Your task to perform on an android device: Search for "rayovac triple a" on bestbuy, select the first entry, and add it to the cart. Image 0: 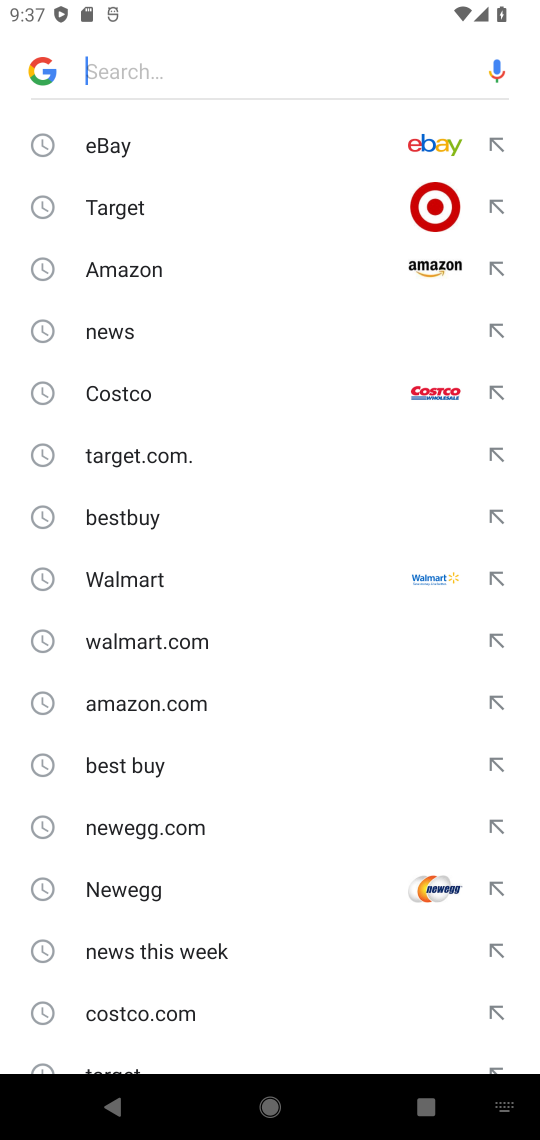
Step 0: click (141, 517)
Your task to perform on an android device: Search for "rayovac triple a" on bestbuy, select the first entry, and add it to the cart. Image 1: 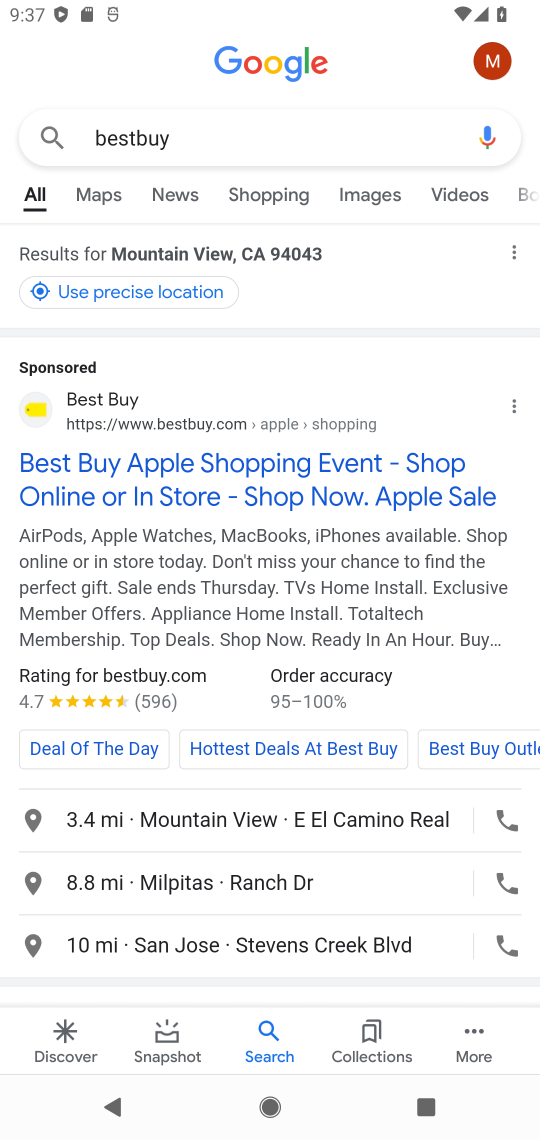
Step 1: click (212, 483)
Your task to perform on an android device: Search for "rayovac triple a" on bestbuy, select the first entry, and add it to the cart. Image 2: 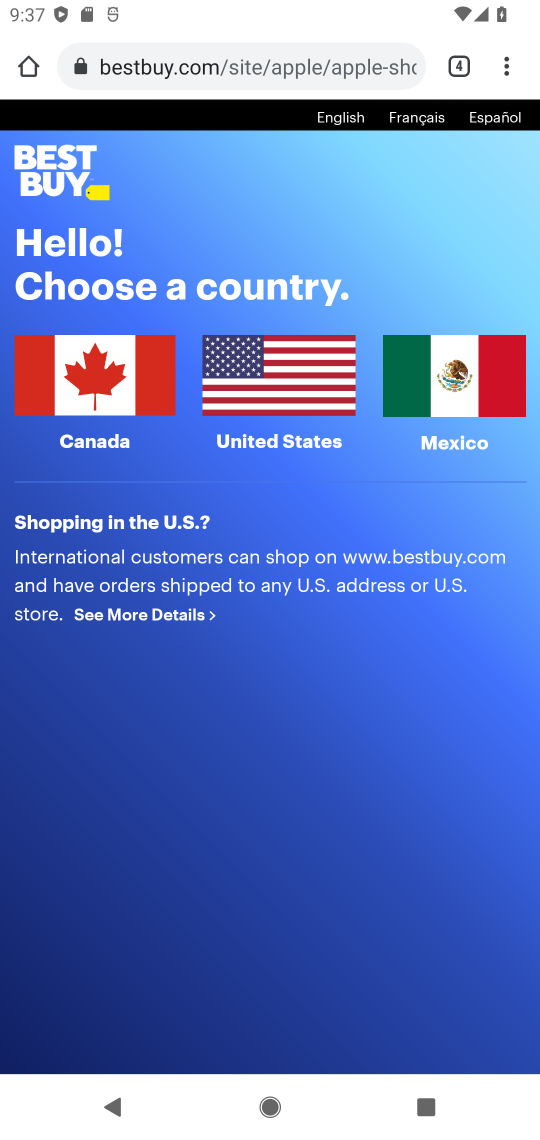
Step 2: click (260, 358)
Your task to perform on an android device: Search for "rayovac triple a" on bestbuy, select the first entry, and add it to the cart. Image 3: 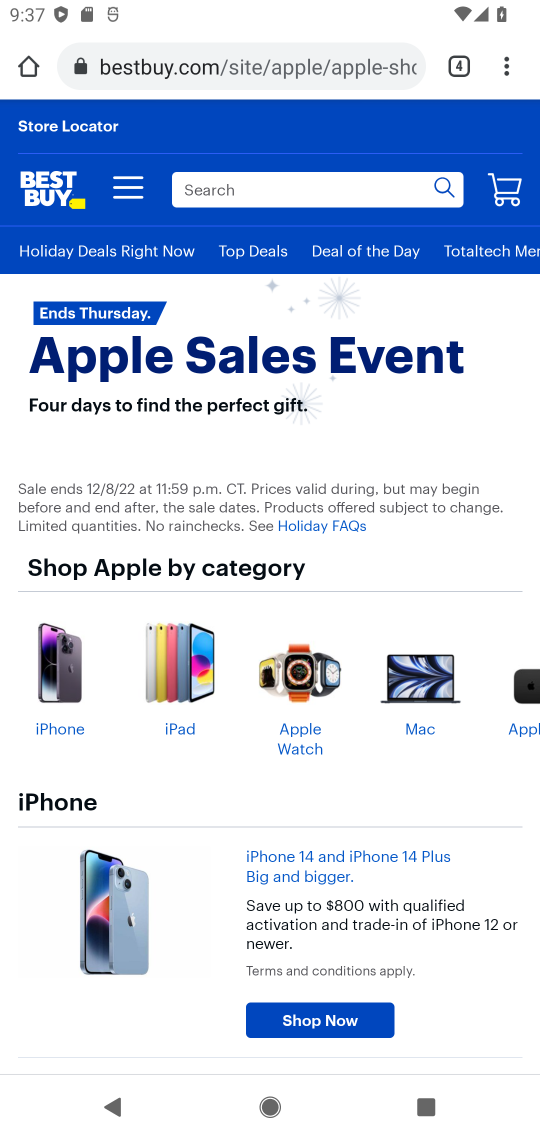
Step 3: click (208, 180)
Your task to perform on an android device: Search for "rayovac triple a" on bestbuy, select the first entry, and add it to the cart. Image 4: 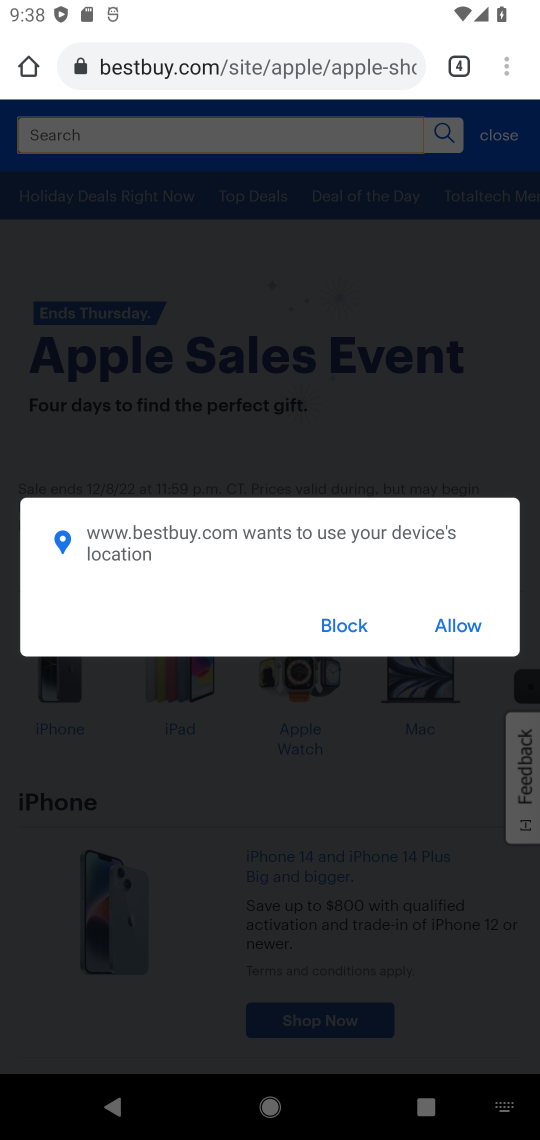
Step 4: click (453, 629)
Your task to perform on an android device: Search for "rayovac triple a" on bestbuy, select the first entry, and add it to the cart. Image 5: 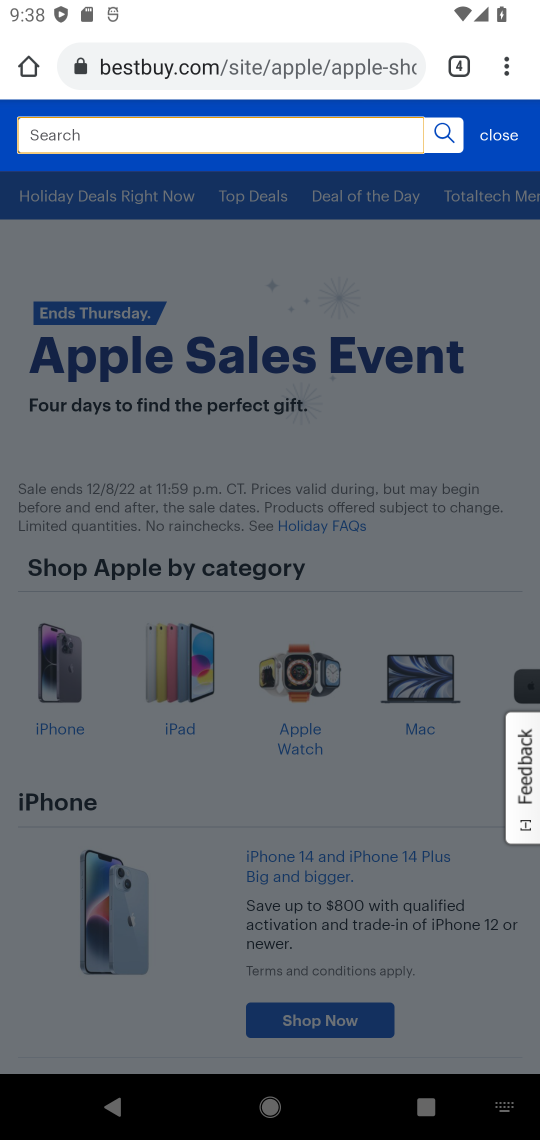
Step 5: type "rayovac triple a"
Your task to perform on an android device: Search for "rayovac triple a" on bestbuy, select the first entry, and add it to the cart. Image 6: 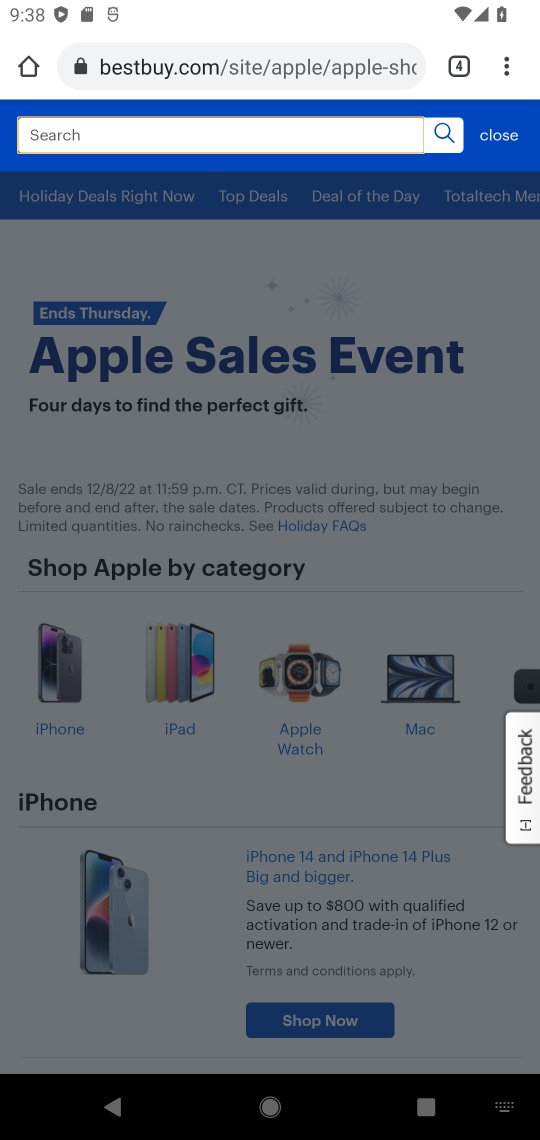
Step 6: click (444, 129)
Your task to perform on an android device: Search for "rayovac triple a" on bestbuy, select the first entry, and add it to the cart. Image 7: 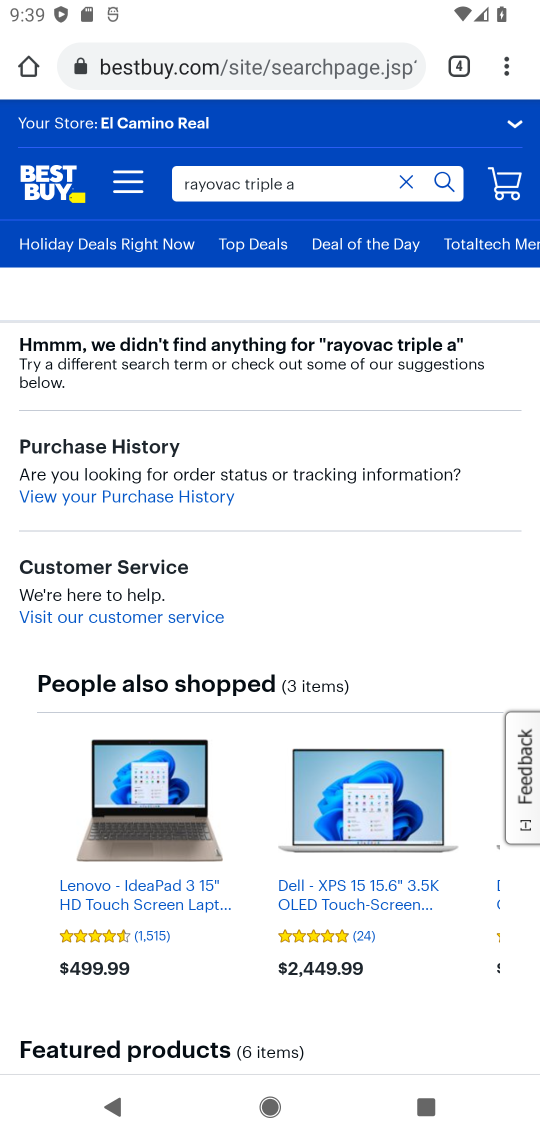
Step 7: task complete